Your task to perform on an android device: Open Google Chrome and open the bookmarks view Image 0: 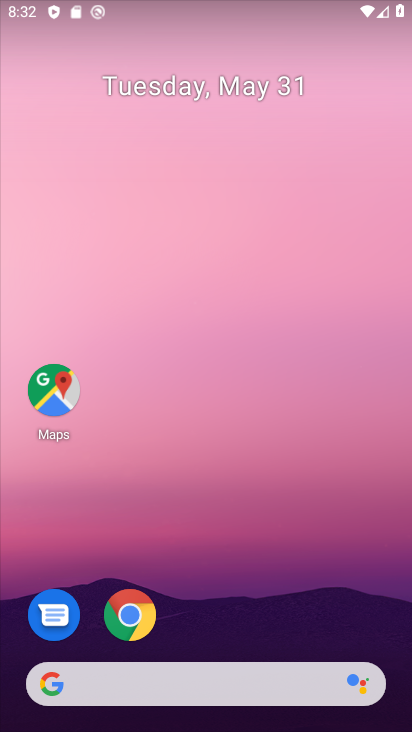
Step 0: click (148, 611)
Your task to perform on an android device: Open Google Chrome and open the bookmarks view Image 1: 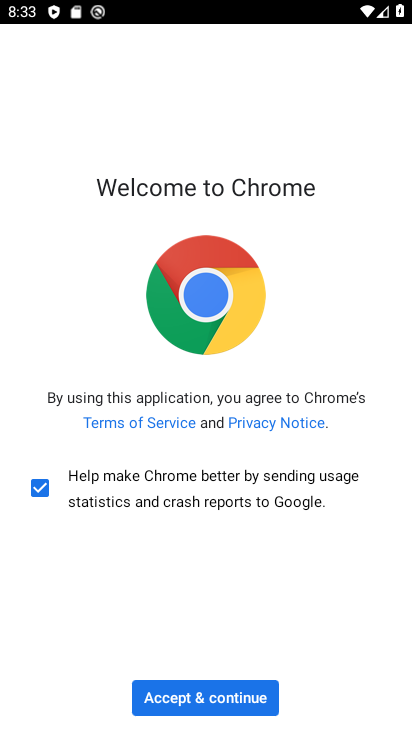
Step 1: click (173, 702)
Your task to perform on an android device: Open Google Chrome and open the bookmarks view Image 2: 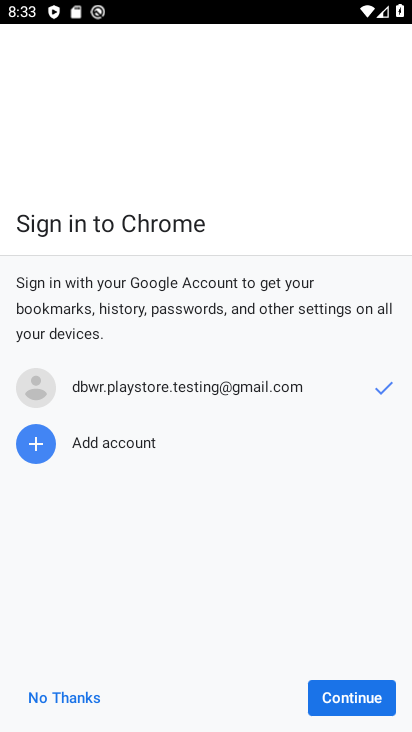
Step 2: click (361, 695)
Your task to perform on an android device: Open Google Chrome and open the bookmarks view Image 3: 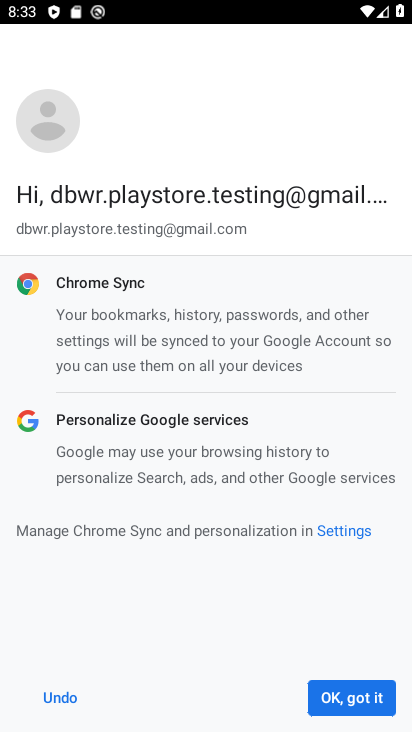
Step 3: click (361, 695)
Your task to perform on an android device: Open Google Chrome and open the bookmarks view Image 4: 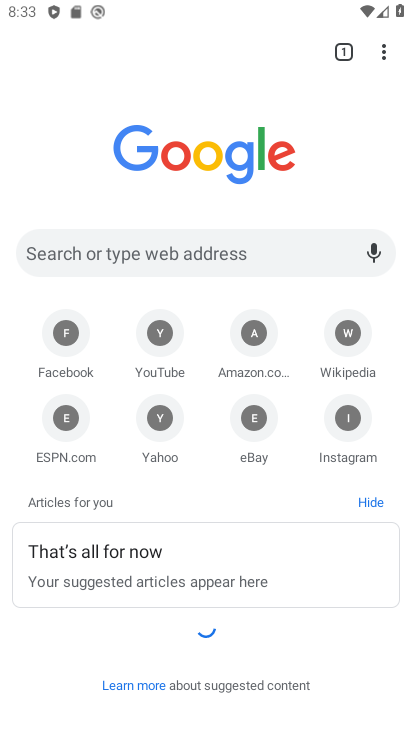
Step 4: click (381, 45)
Your task to perform on an android device: Open Google Chrome and open the bookmarks view Image 5: 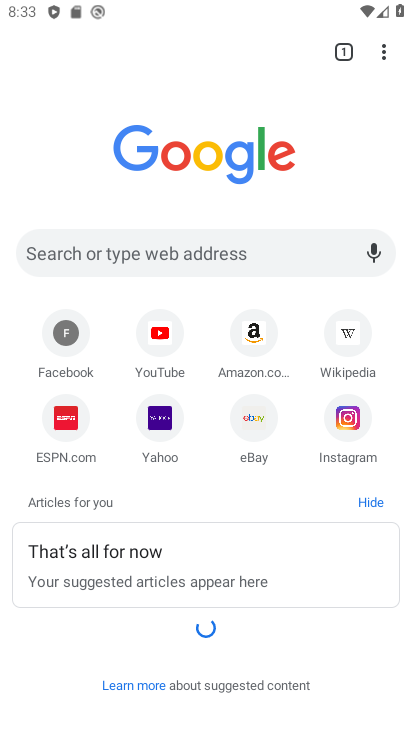
Step 5: click (386, 59)
Your task to perform on an android device: Open Google Chrome and open the bookmarks view Image 6: 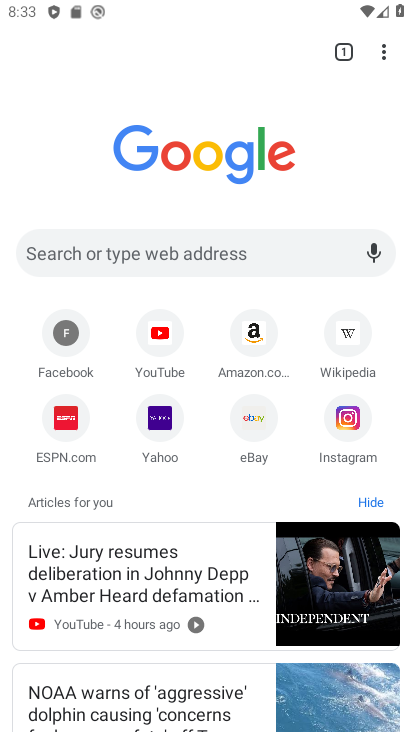
Step 6: task complete